Your task to perform on an android device: Clear the cart on amazon.com. Add "logitech g pro" to the cart on amazon.com Image 0: 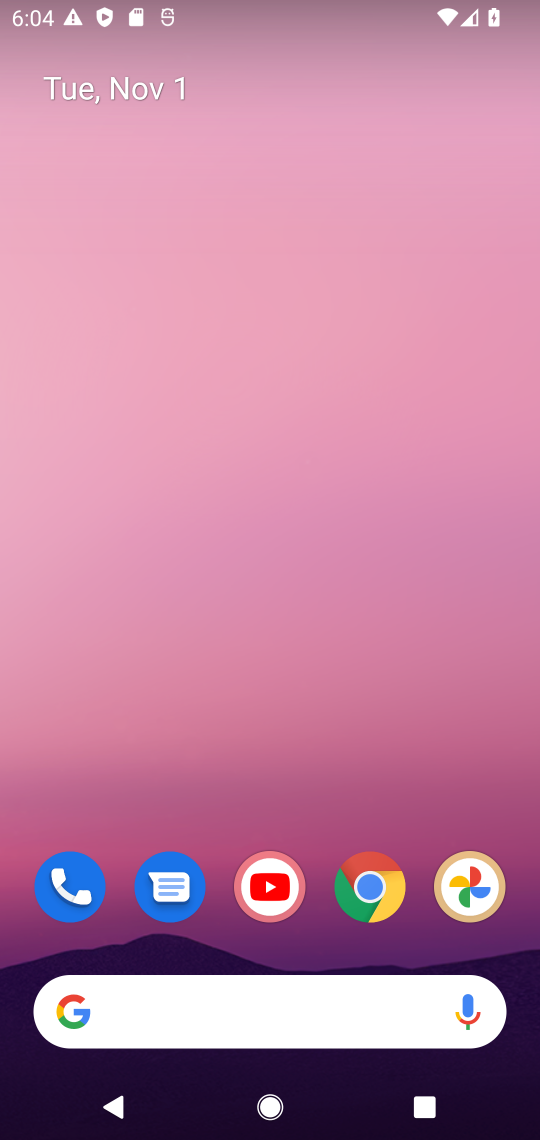
Step 0: drag from (309, 847) to (308, 39)
Your task to perform on an android device: Clear the cart on amazon.com. Add "logitech g pro" to the cart on amazon.com Image 1: 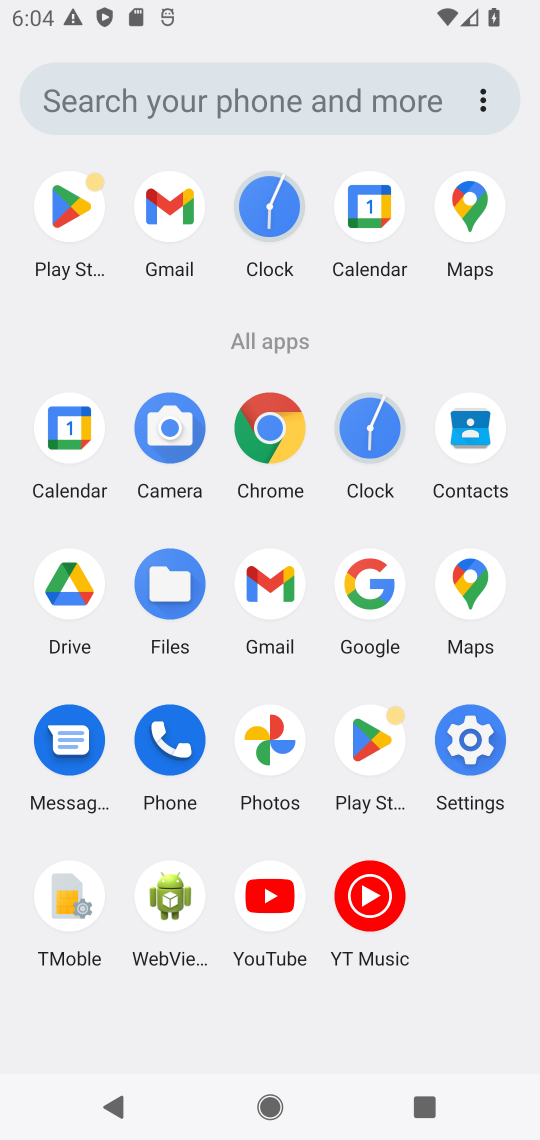
Step 1: click (270, 419)
Your task to perform on an android device: Clear the cart on amazon.com. Add "logitech g pro" to the cart on amazon.com Image 2: 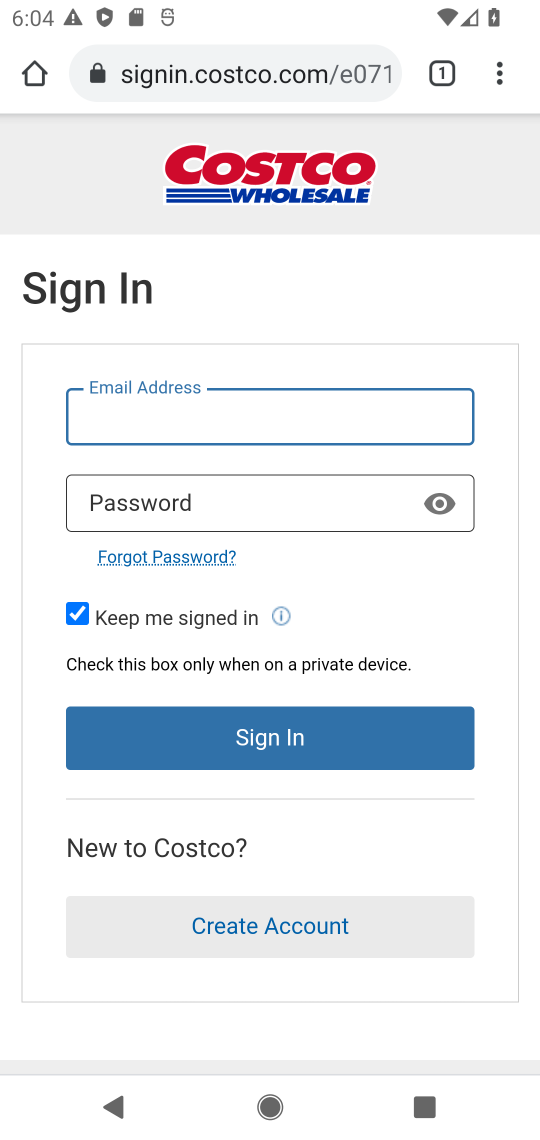
Step 2: click (219, 69)
Your task to perform on an android device: Clear the cart on amazon.com. Add "logitech g pro" to the cart on amazon.com Image 3: 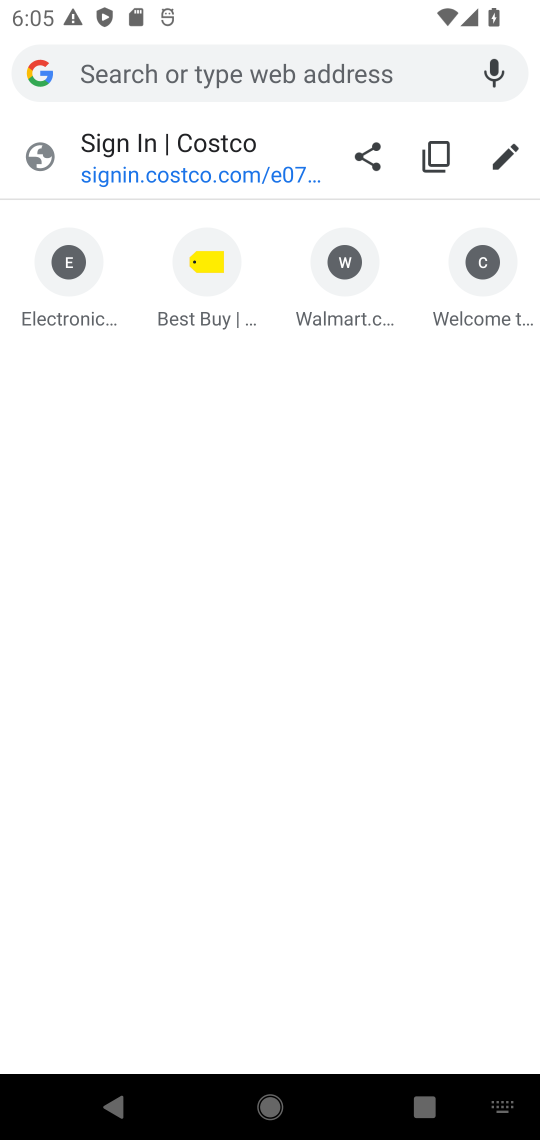
Step 3: type "amazon.com"
Your task to perform on an android device: Clear the cart on amazon.com. Add "logitech g pro" to the cart on amazon.com Image 4: 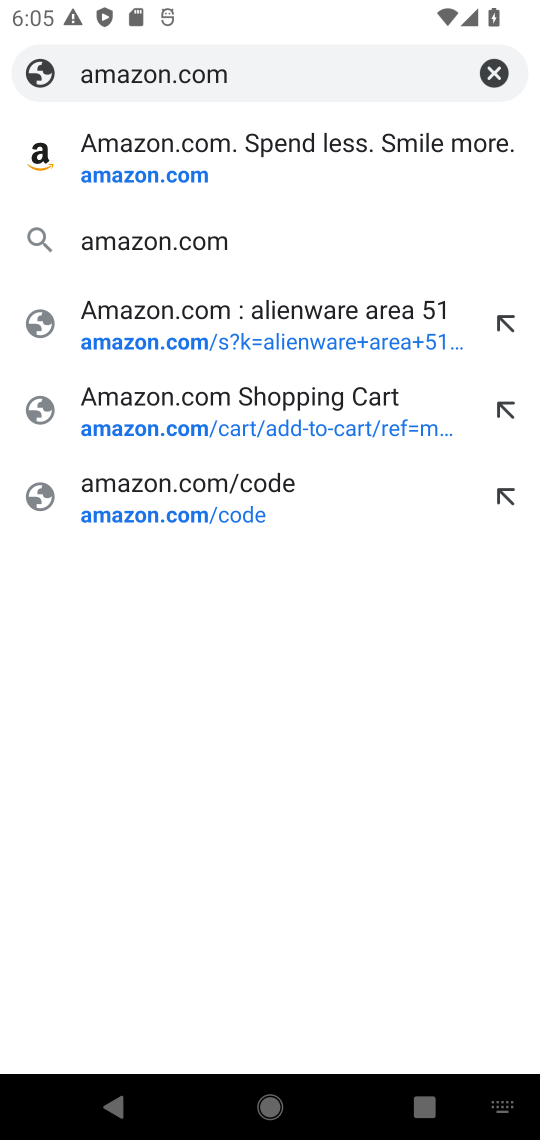
Step 4: click (241, 164)
Your task to perform on an android device: Clear the cart on amazon.com. Add "logitech g pro" to the cart on amazon.com Image 5: 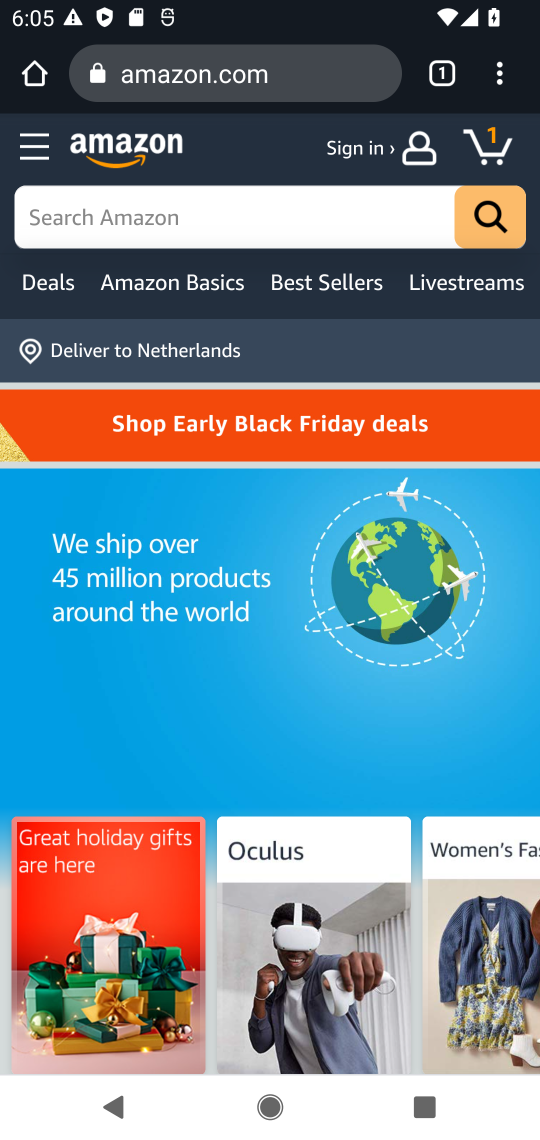
Step 5: click (196, 208)
Your task to perform on an android device: Clear the cart on amazon.com. Add "logitech g pro" to the cart on amazon.com Image 6: 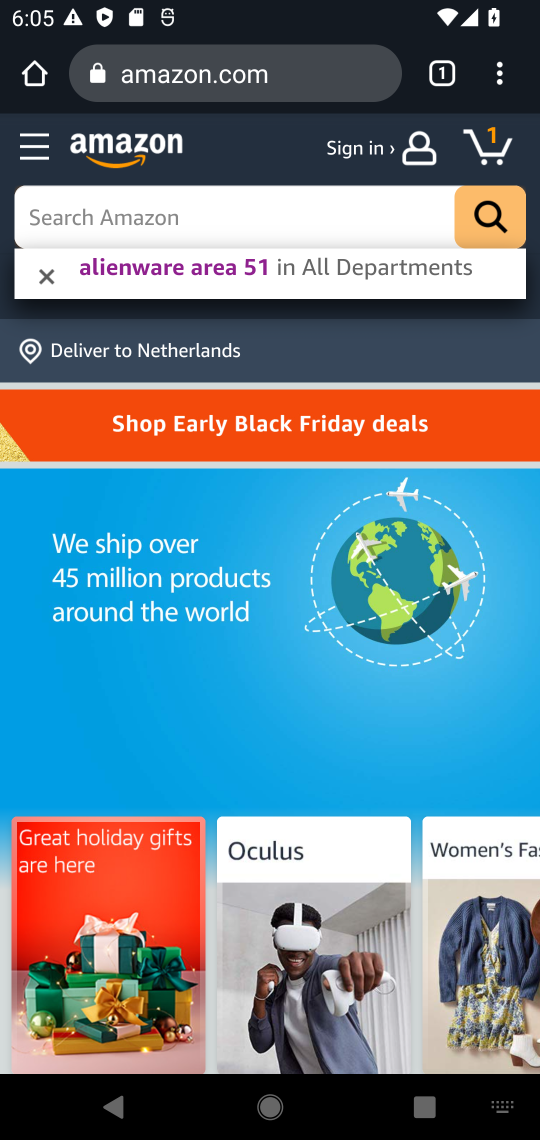
Step 6: click (140, 206)
Your task to perform on an android device: Clear the cart on amazon.com. Add "logitech g pro" to the cart on amazon.com Image 7: 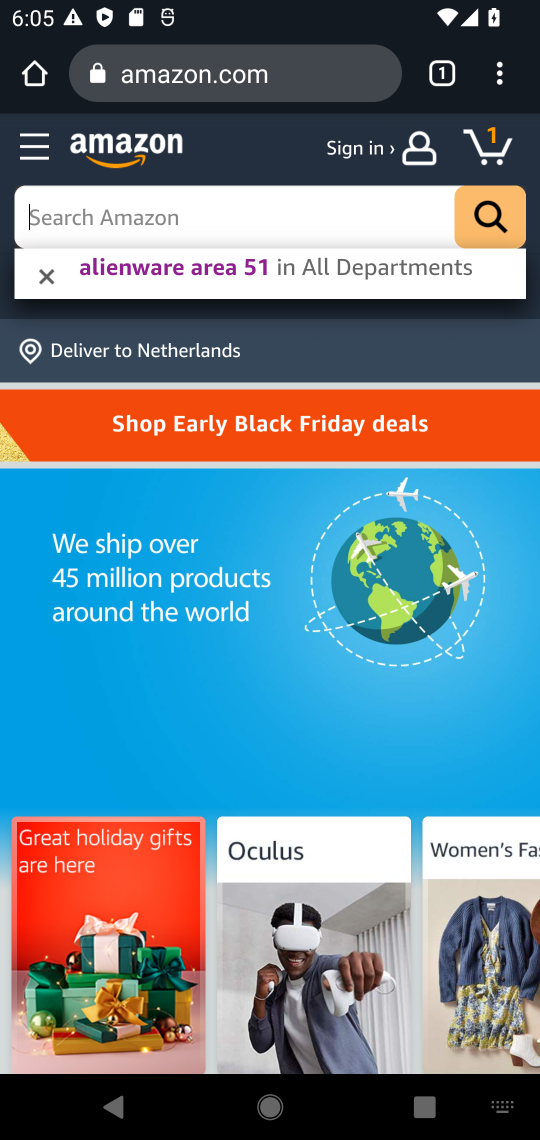
Step 7: type "logitech g pro"
Your task to perform on an android device: Clear the cart on amazon.com. Add "logitech g pro" to the cart on amazon.com Image 8: 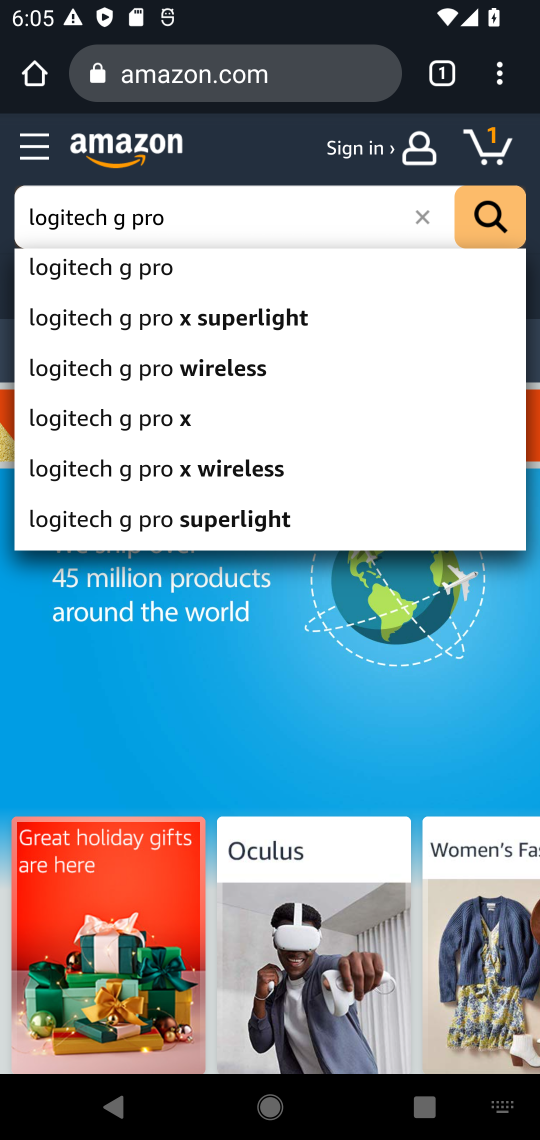
Step 8: click (137, 273)
Your task to perform on an android device: Clear the cart on amazon.com. Add "logitech g pro" to the cart on amazon.com Image 9: 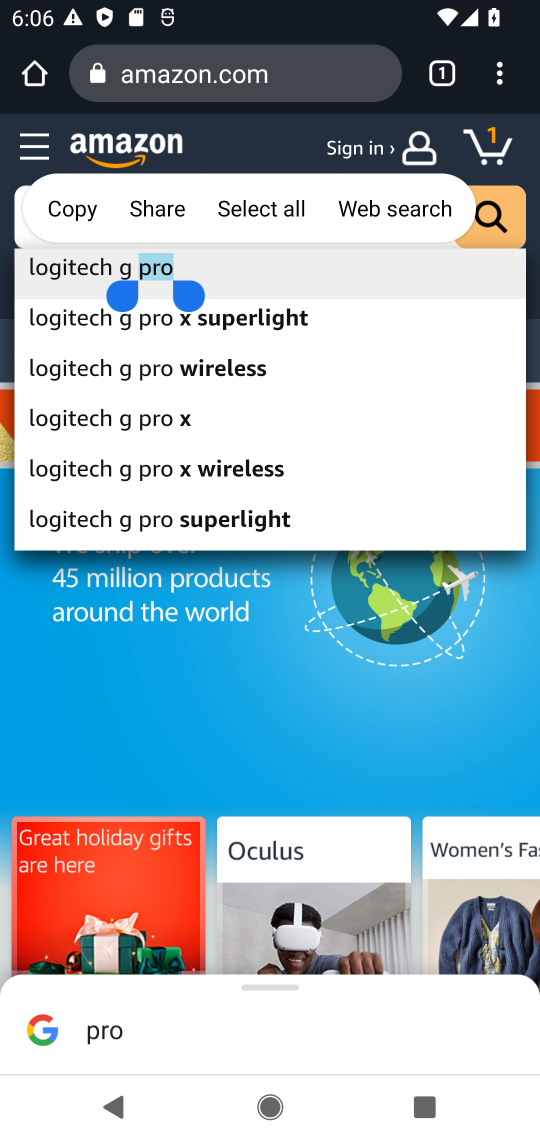
Step 9: click (274, 271)
Your task to perform on an android device: Clear the cart on amazon.com. Add "logitech g pro" to the cart on amazon.com Image 10: 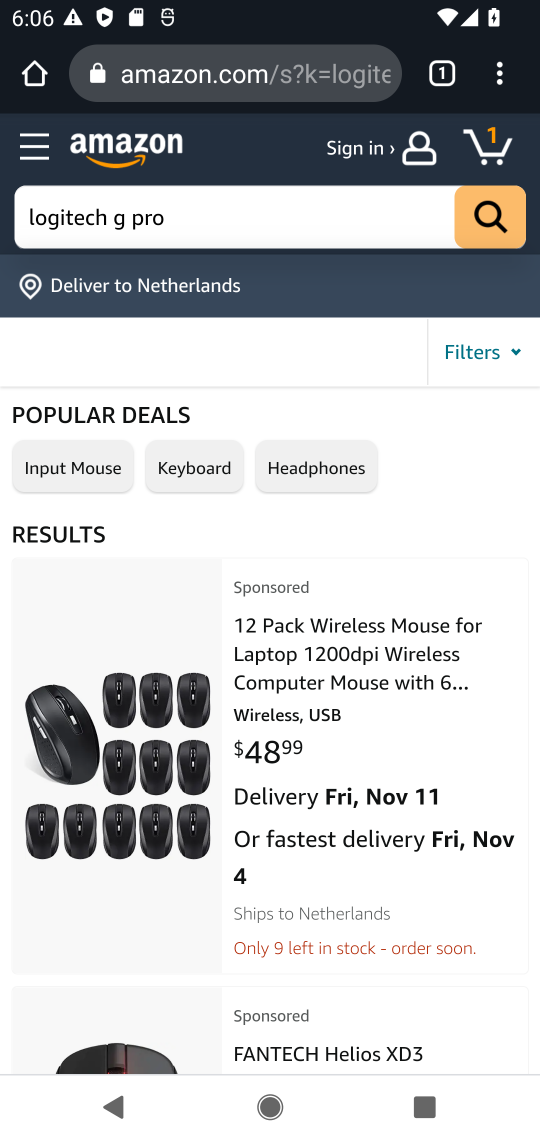
Step 10: click (313, 642)
Your task to perform on an android device: Clear the cart on amazon.com. Add "logitech g pro" to the cart on amazon.com Image 11: 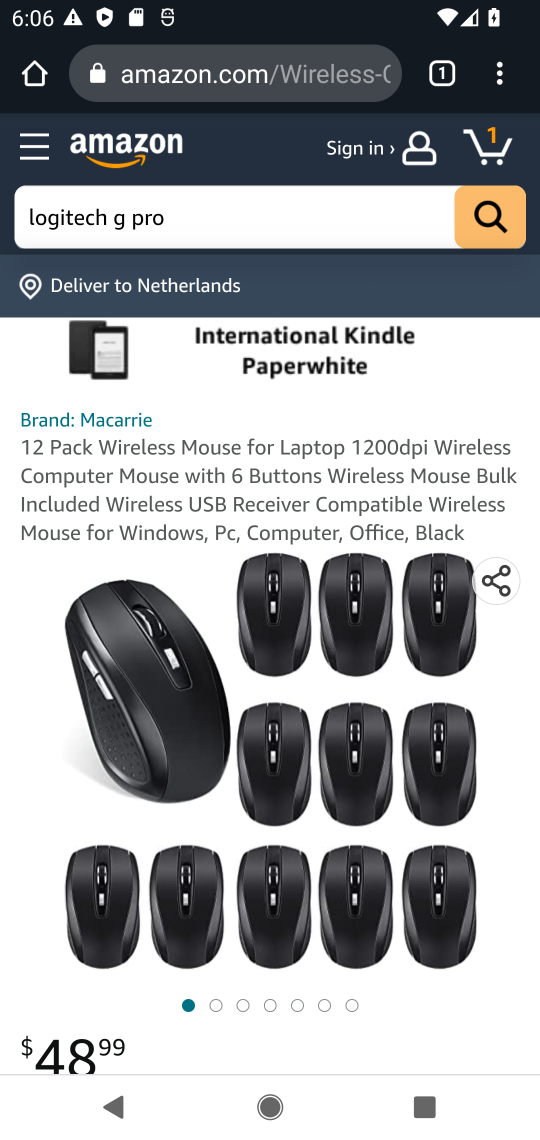
Step 11: drag from (344, 977) to (372, 312)
Your task to perform on an android device: Clear the cart on amazon.com. Add "logitech g pro" to the cart on amazon.com Image 12: 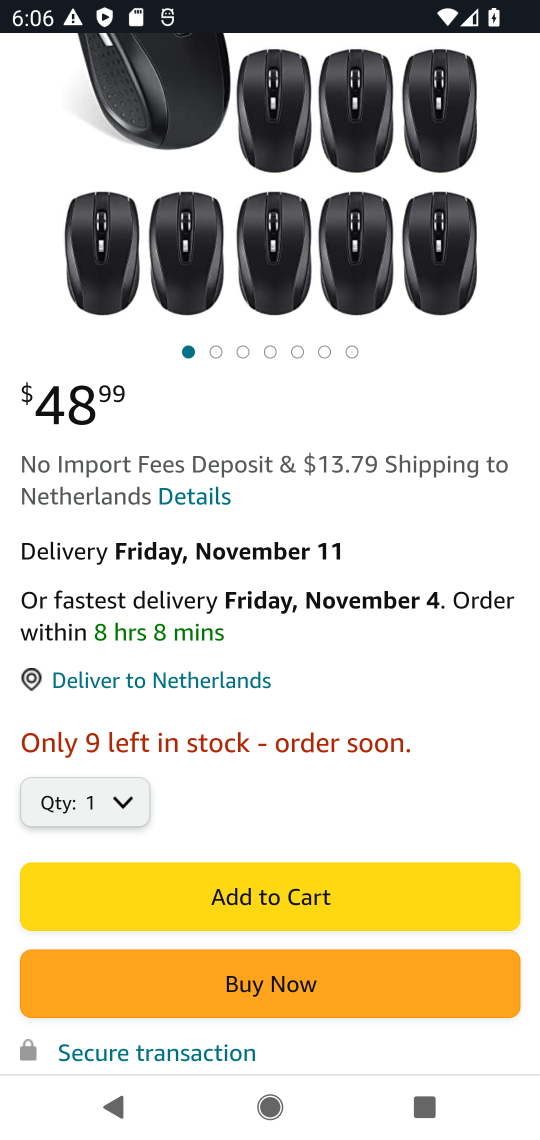
Step 12: click (286, 894)
Your task to perform on an android device: Clear the cart on amazon.com. Add "logitech g pro" to the cart on amazon.com Image 13: 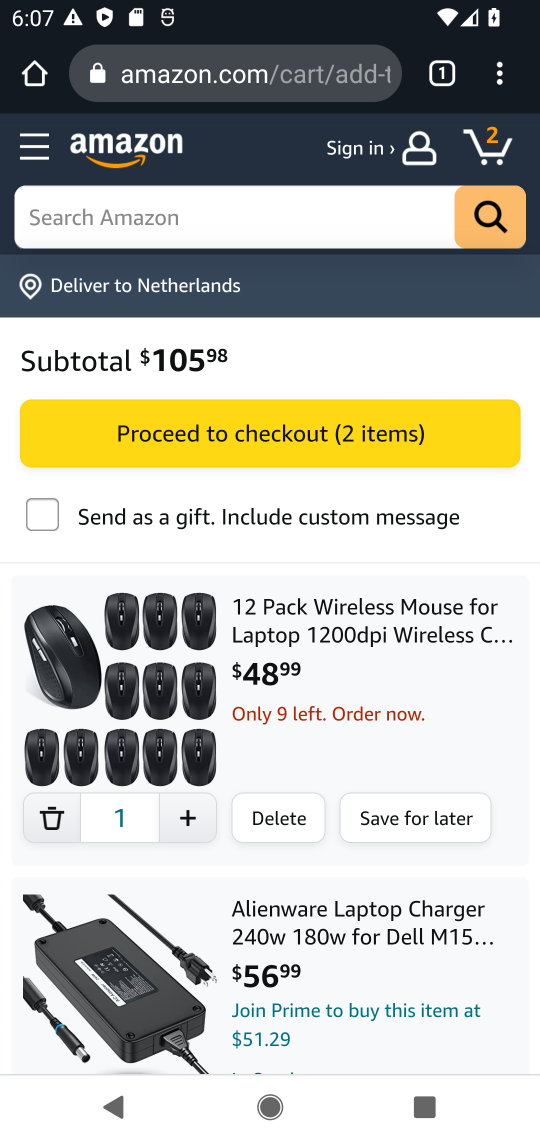
Step 13: click (264, 434)
Your task to perform on an android device: Clear the cart on amazon.com. Add "logitech g pro" to the cart on amazon.com Image 14: 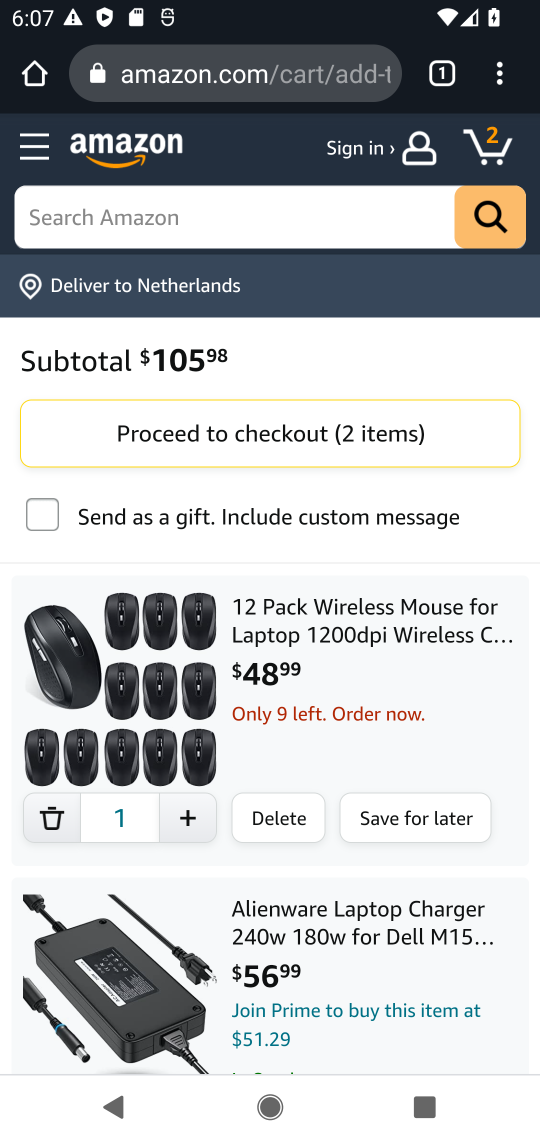
Step 14: task complete